Your task to perform on an android device: change the upload size in google photos Image 0: 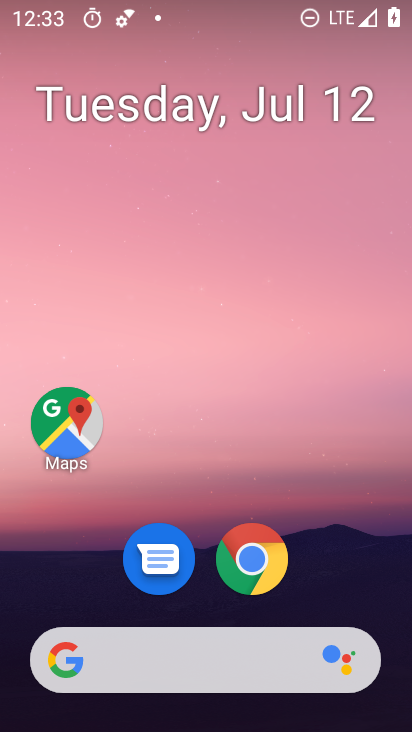
Step 0: drag from (197, 572) to (248, 27)
Your task to perform on an android device: change the upload size in google photos Image 1: 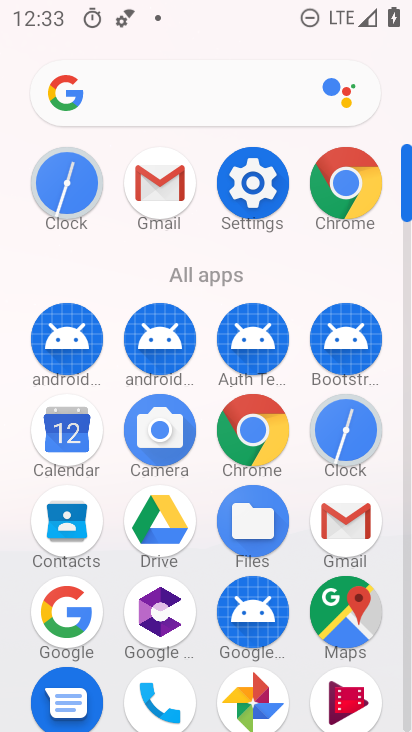
Step 1: click (263, 688)
Your task to perform on an android device: change the upload size in google photos Image 2: 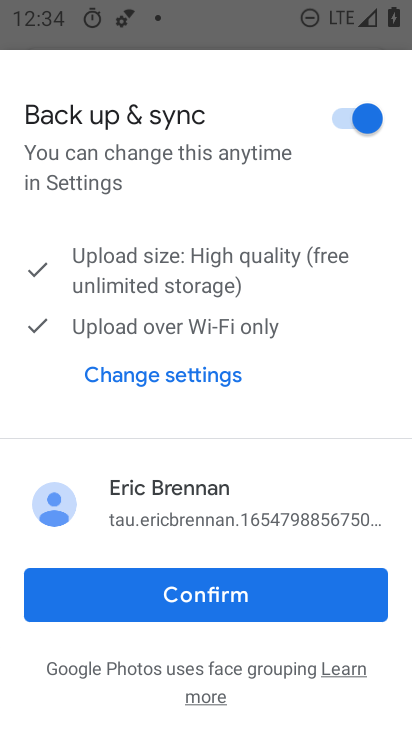
Step 2: click (204, 584)
Your task to perform on an android device: change the upload size in google photos Image 3: 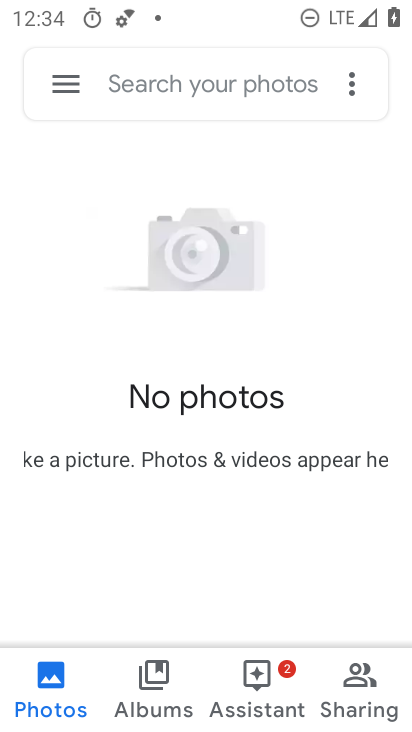
Step 3: click (68, 77)
Your task to perform on an android device: change the upload size in google photos Image 4: 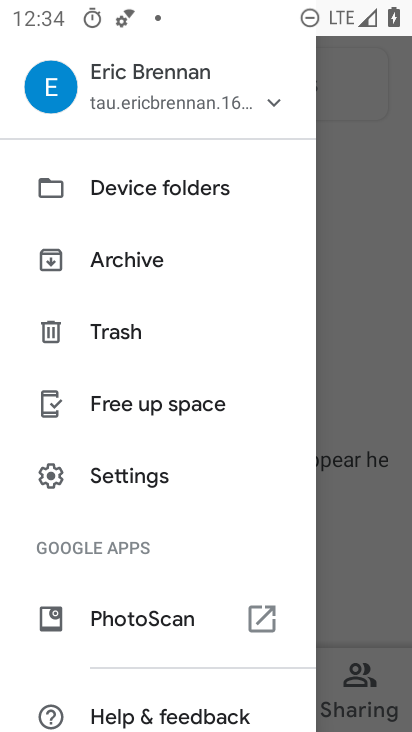
Step 4: click (153, 495)
Your task to perform on an android device: change the upload size in google photos Image 5: 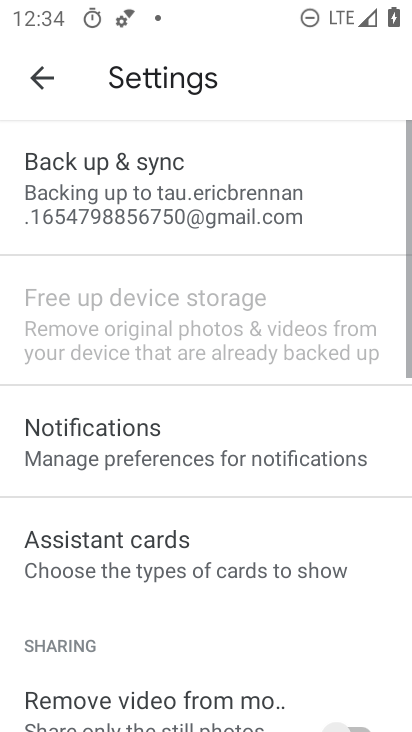
Step 5: click (102, 202)
Your task to perform on an android device: change the upload size in google photos Image 6: 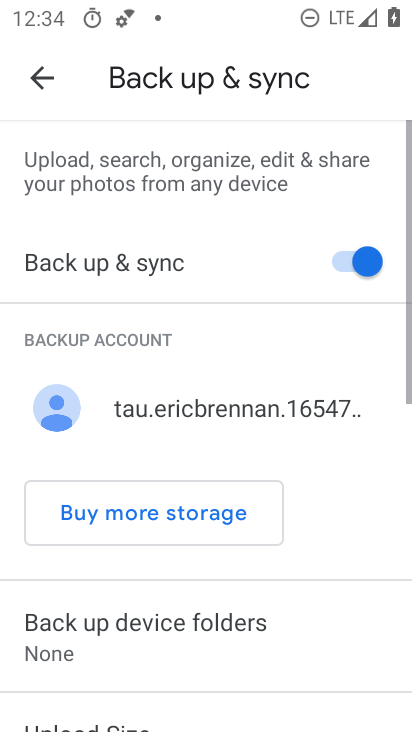
Step 6: drag from (155, 632) to (208, 204)
Your task to perform on an android device: change the upload size in google photos Image 7: 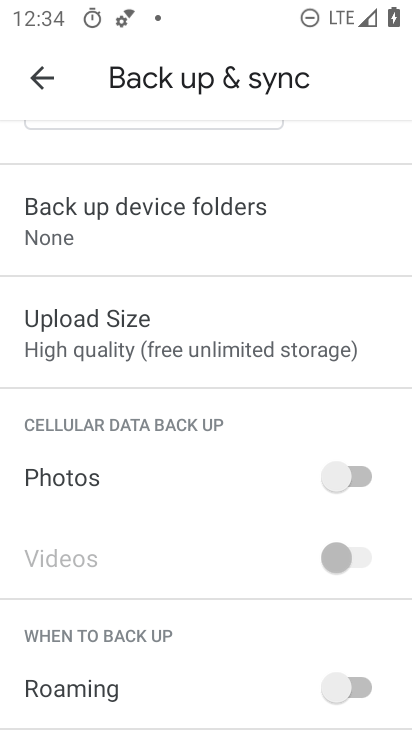
Step 7: click (123, 339)
Your task to perform on an android device: change the upload size in google photos Image 8: 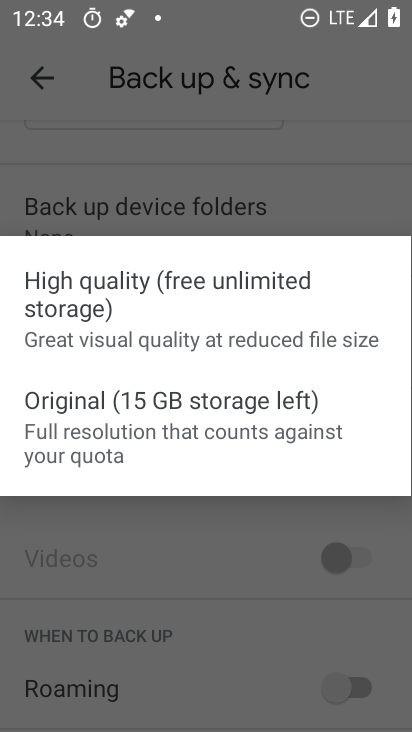
Step 8: click (113, 585)
Your task to perform on an android device: change the upload size in google photos Image 9: 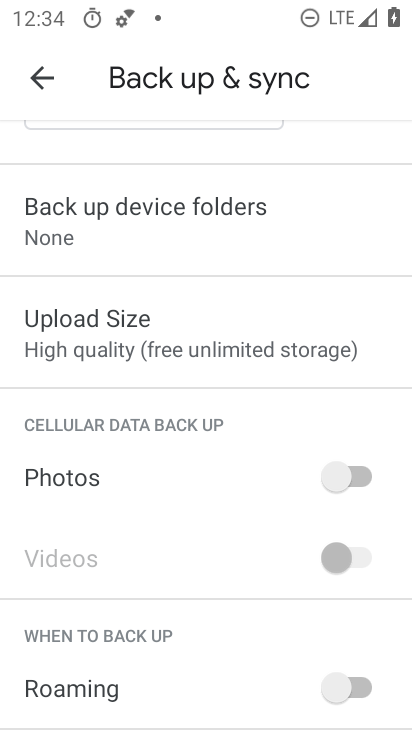
Step 9: click (107, 311)
Your task to perform on an android device: change the upload size in google photos Image 10: 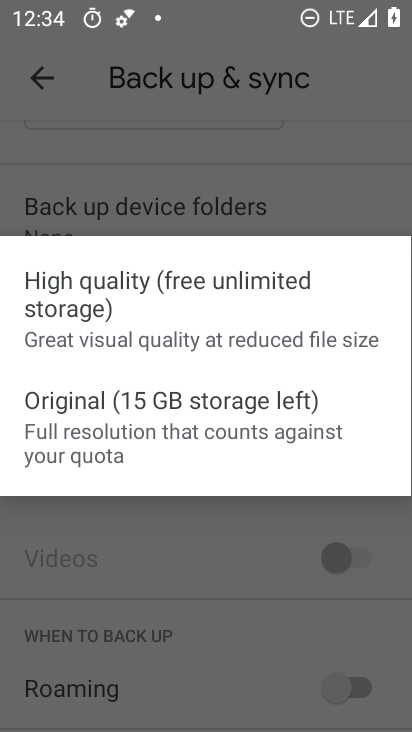
Step 10: click (92, 432)
Your task to perform on an android device: change the upload size in google photos Image 11: 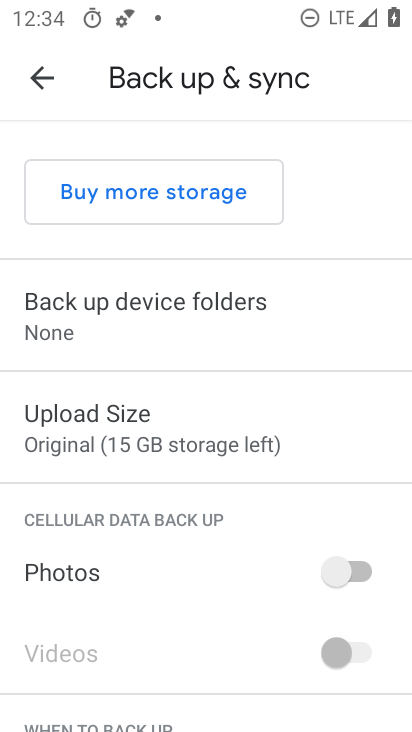
Step 11: task complete